Your task to perform on an android device: When is my next meeting? Image 0: 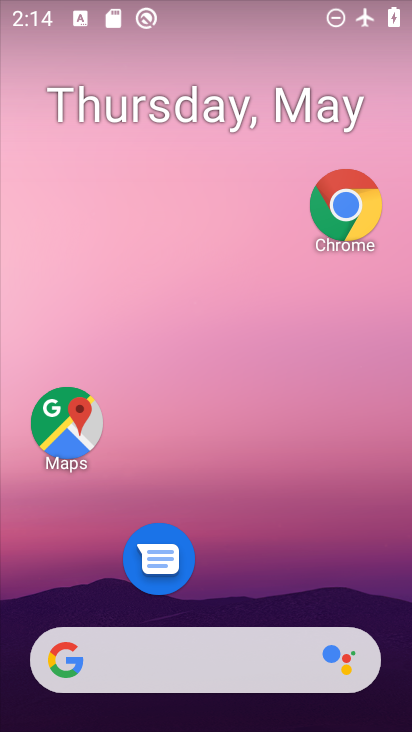
Step 0: drag from (224, 603) to (319, 171)
Your task to perform on an android device: When is my next meeting? Image 1: 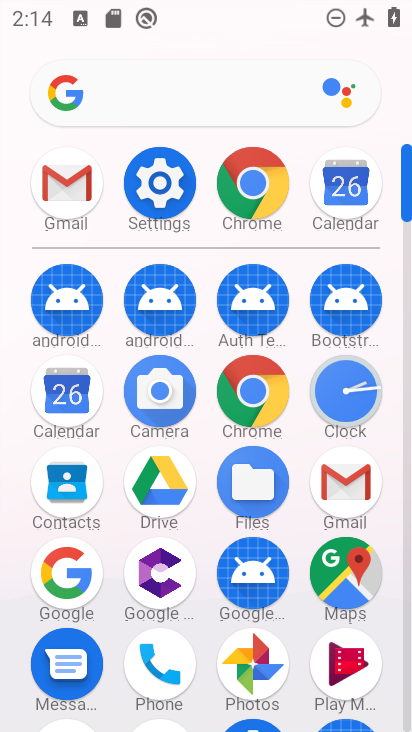
Step 1: click (68, 403)
Your task to perform on an android device: When is my next meeting? Image 2: 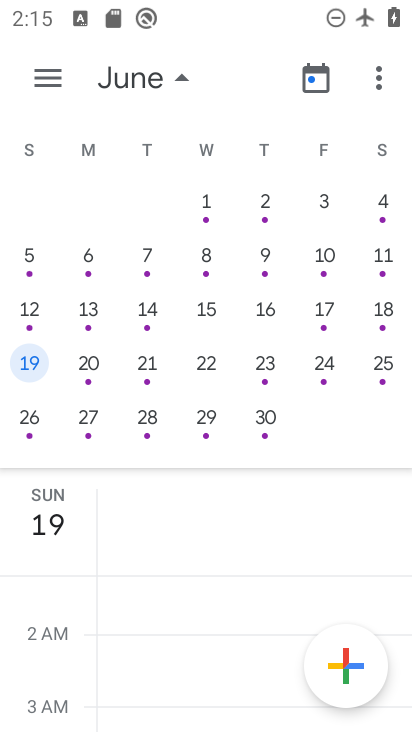
Step 2: click (59, 80)
Your task to perform on an android device: When is my next meeting? Image 3: 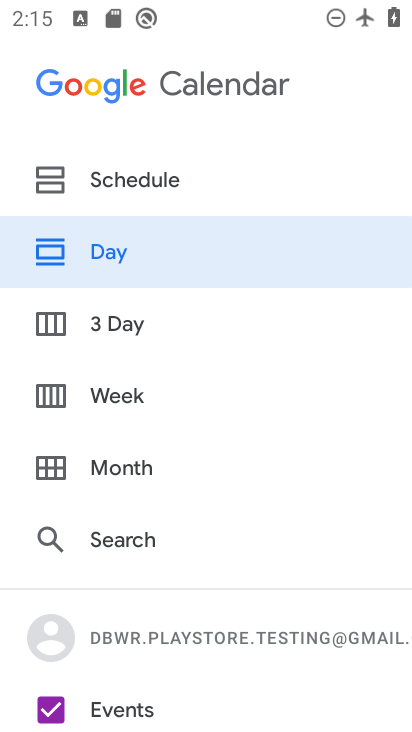
Step 3: drag from (117, 535) to (166, 202)
Your task to perform on an android device: When is my next meeting? Image 4: 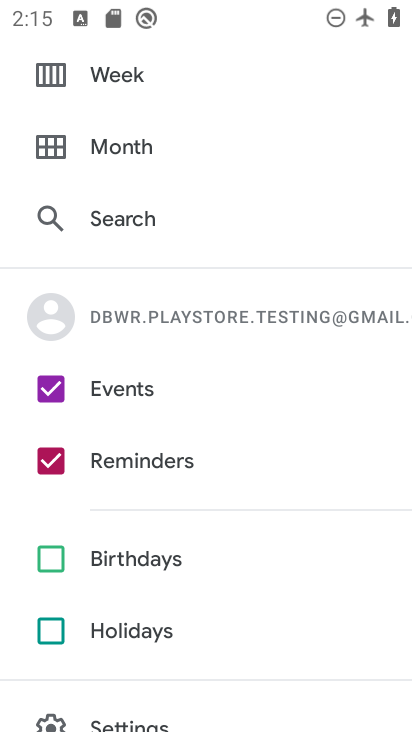
Step 4: press back button
Your task to perform on an android device: When is my next meeting? Image 5: 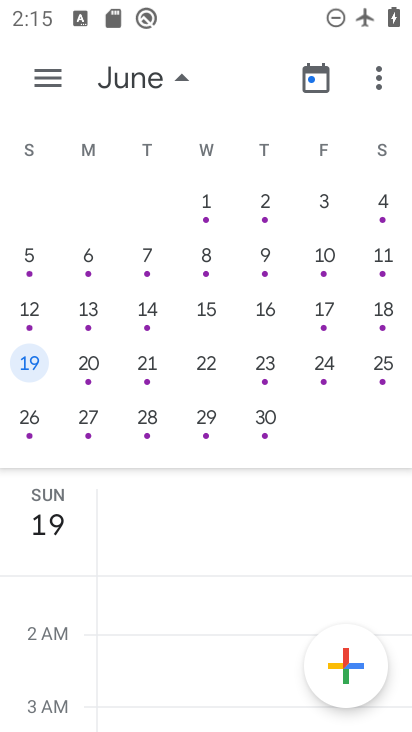
Step 5: drag from (138, 319) to (411, 406)
Your task to perform on an android device: When is my next meeting? Image 6: 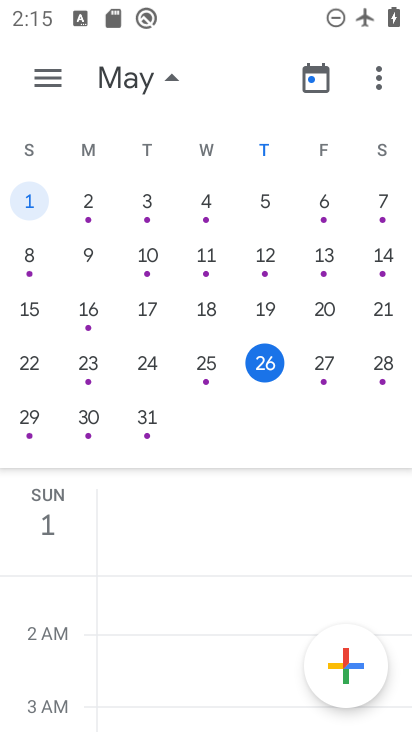
Step 6: click (272, 372)
Your task to perform on an android device: When is my next meeting? Image 7: 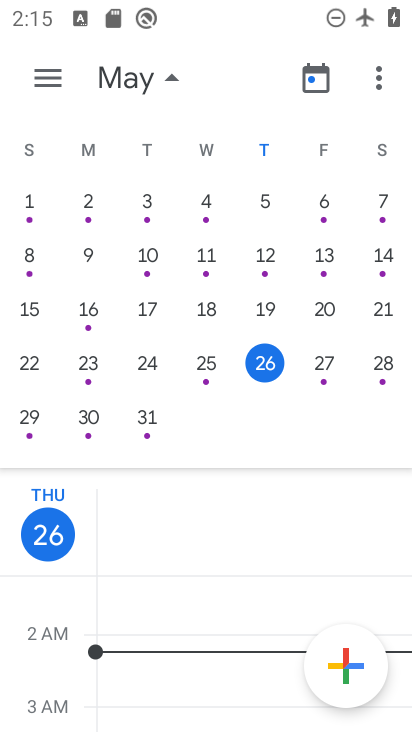
Step 7: task complete